Your task to perform on an android device: Open the map Image 0: 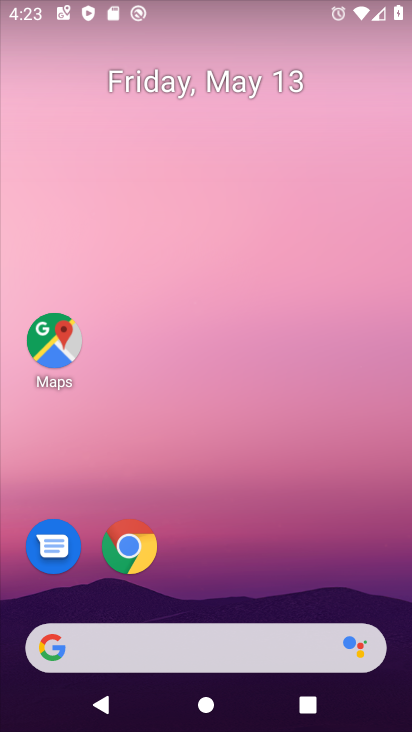
Step 0: click (405, 86)
Your task to perform on an android device: Open the map Image 1: 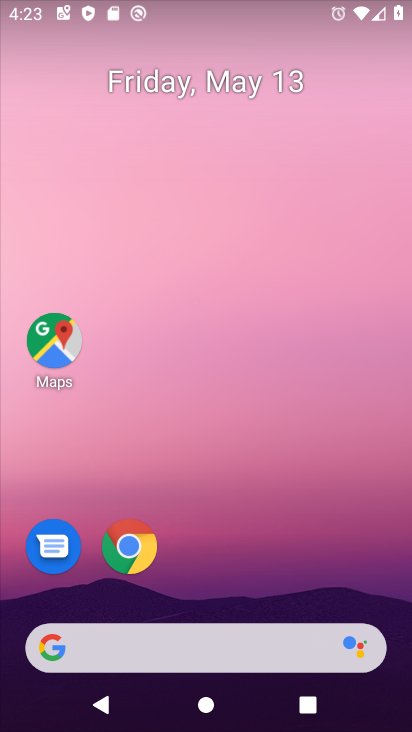
Step 1: click (69, 354)
Your task to perform on an android device: Open the map Image 2: 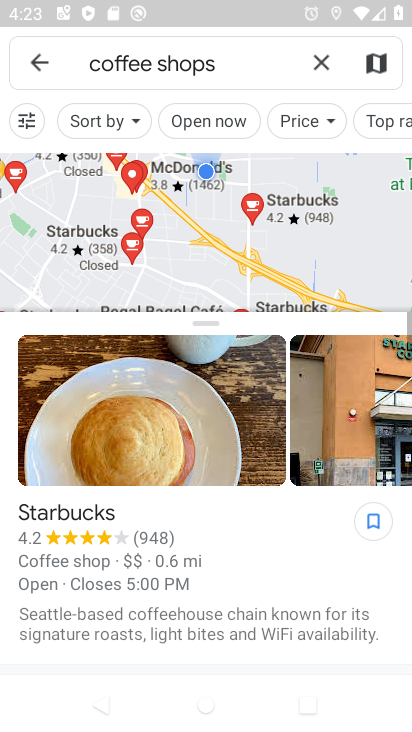
Step 2: click (38, 60)
Your task to perform on an android device: Open the map Image 3: 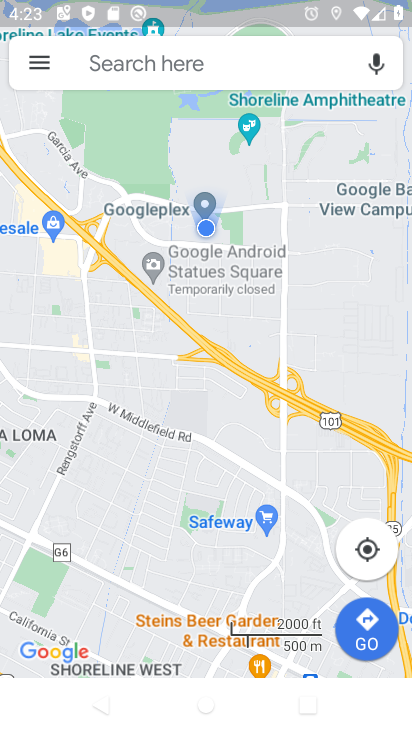
Step 3: task complete